Your task to perform on an android device: Turn on the flashlight Image 0: 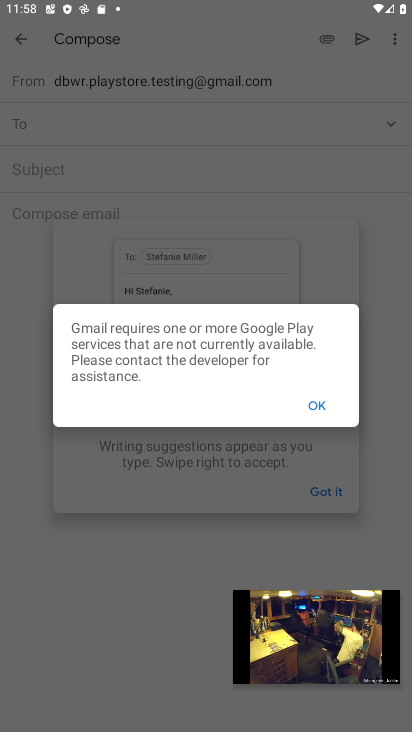
Step 0: press home button
Your task to perform on an android device: Turn on the flashlight Image 1: 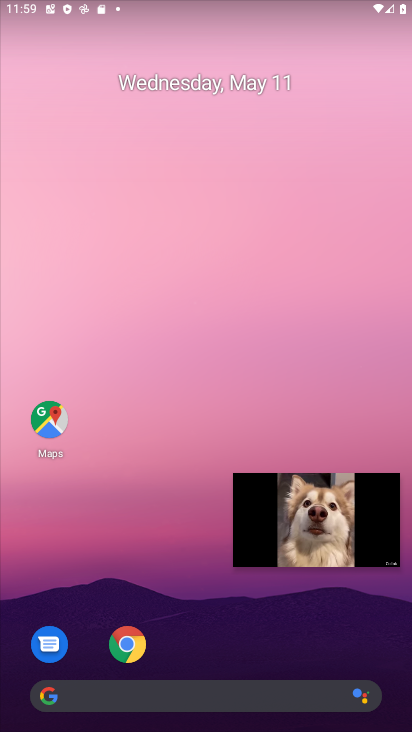
Step 1: click (345, 498)
Your task to perform on an android device: Turn on the flashlight Image 2: 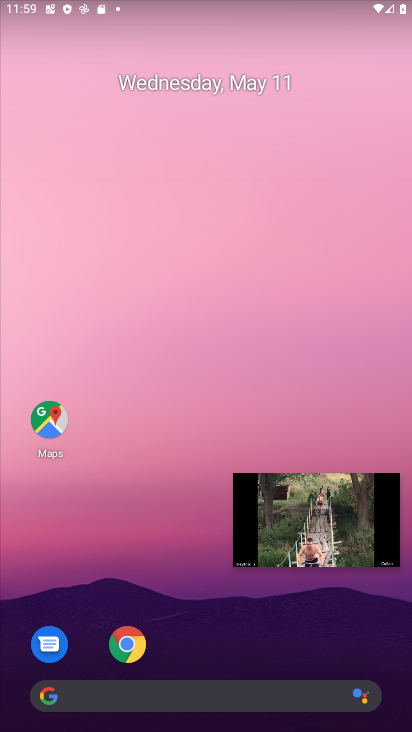
Step 2: click (345, 498)
Your task to perform on an android device: Turn on the flashlight Image 3: 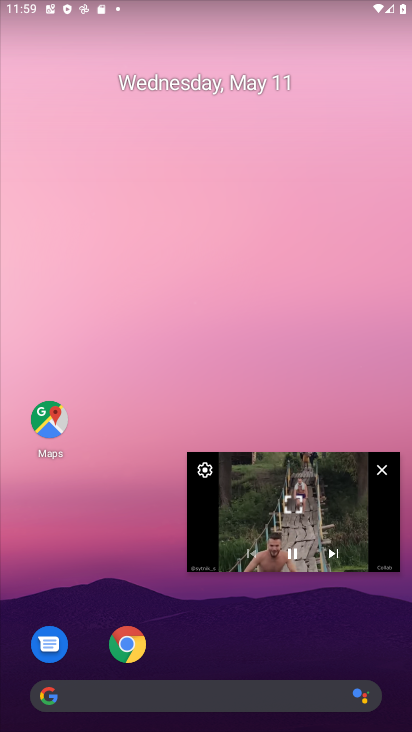
Step 3: click (386, 473)
Your task to perform on an android device: Turn on the flashlight Image 4: 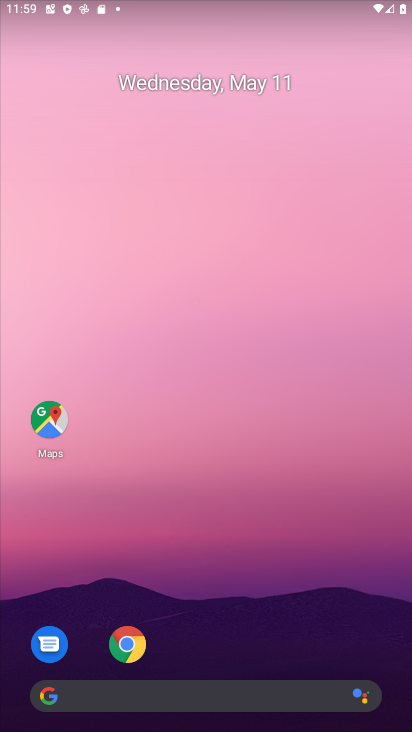
Step 4: drag from (213, 605) to (179, 13)
Your task to perform on an android device: Turn on the flashlight Image 5: 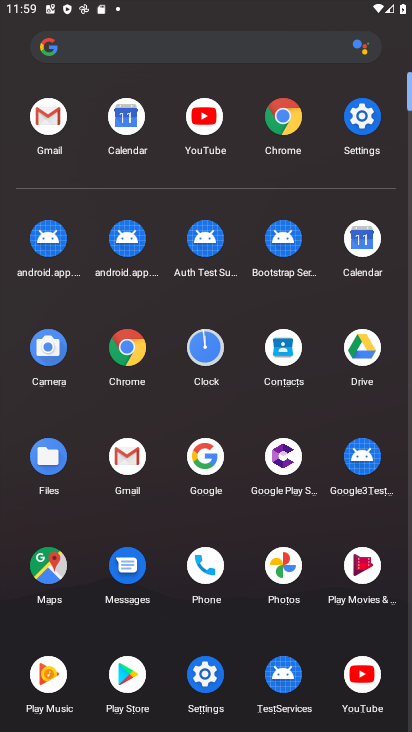
Step 5: click (346, 124)
Your task to perform on an android device: Turn on the flashlight Image 6: 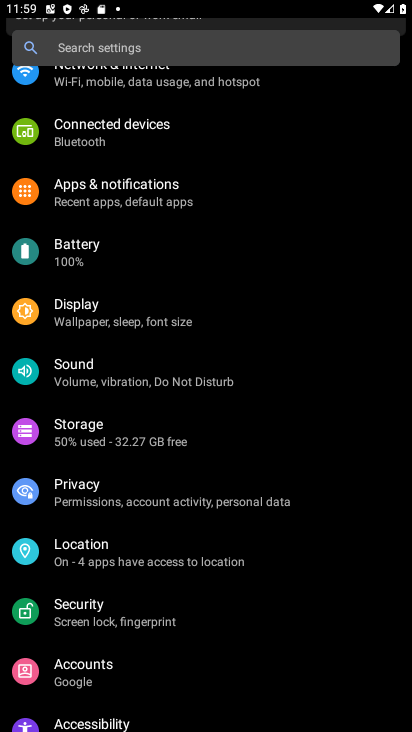
Step 6: click (248, 359)
Your task to perform on an android device: Turn on the flashlight Image 7: 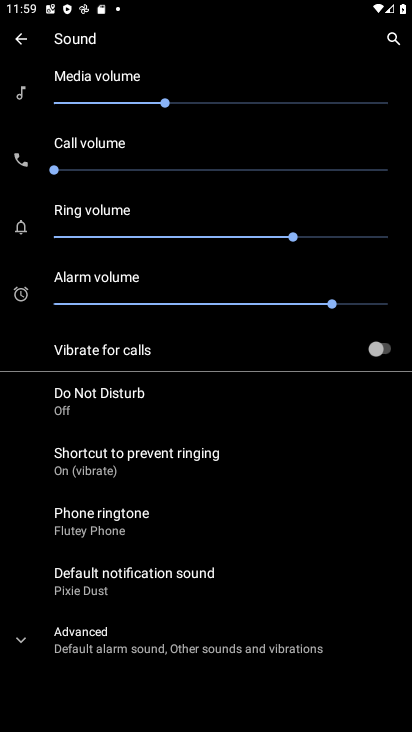
Step 7: task complete